Your task to perform on an android device: Open location settings Image 0: 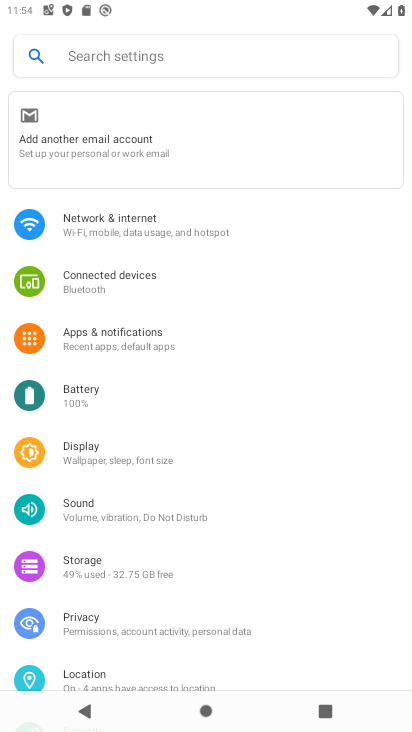
Step 0: drag from (229, 564) to (305, 311)
Your task to perform on an android device: Open location settings Image 1: 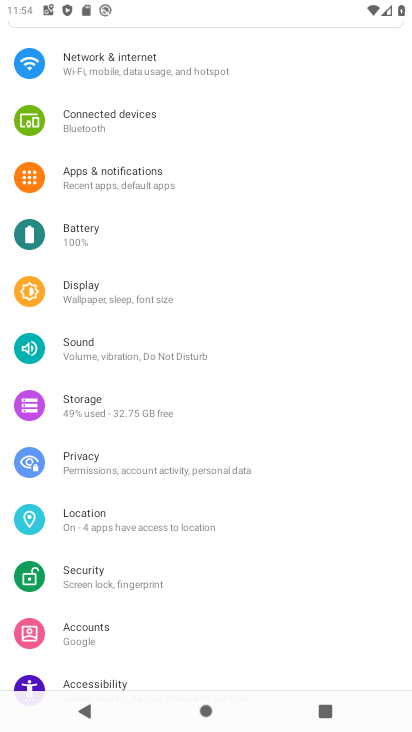
Step 1: click (127, 523)
Your task to perform on an android device: Open location settings Image 2: 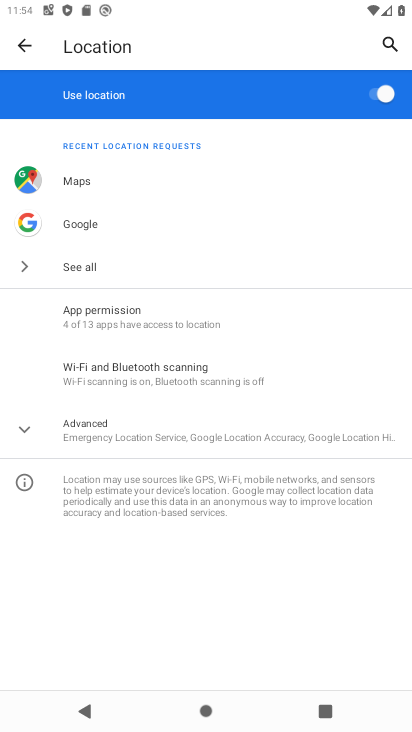
Step 2: task complete